Your task to perform on an android device: Find coffee shops on Maps Image 0: 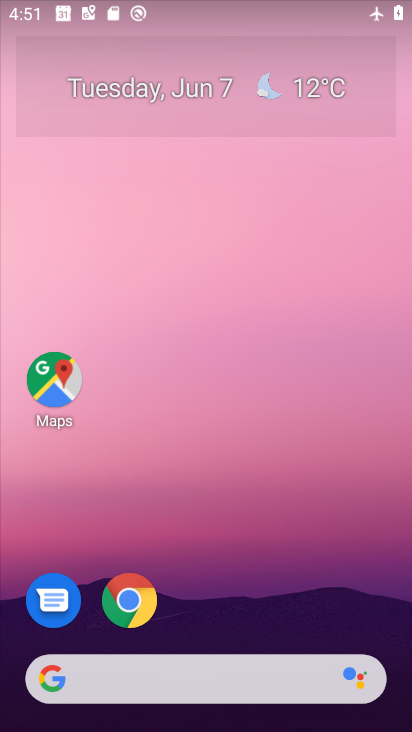
Step 0: drag from (294, 498) to (314, 24)
Your task to perform on an android device: Find coffee shops on Maps Image 1: 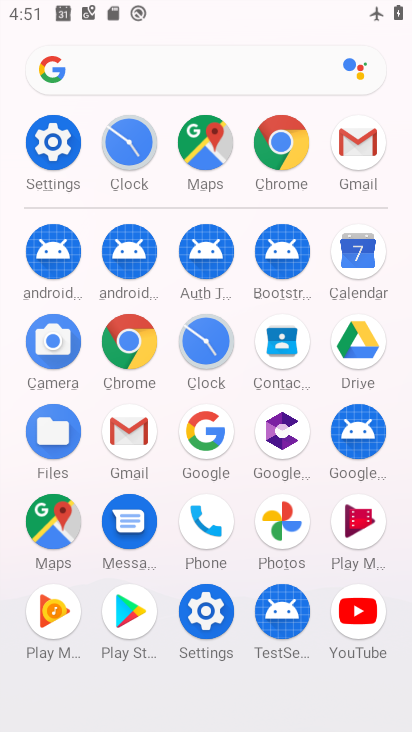
Step 1: click (216, 137)
Your task to perform on an android device: Find coffee shops on Maps Image 2: 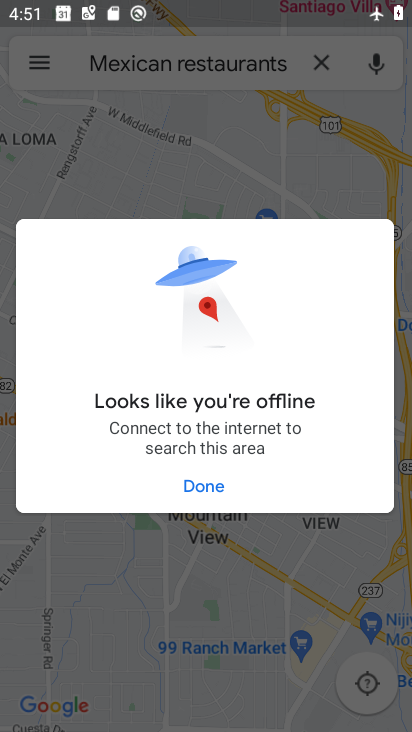
Step 2: click (202, 486)
Your task to perform on an android device: Find coffee shops on Maps Image 3: 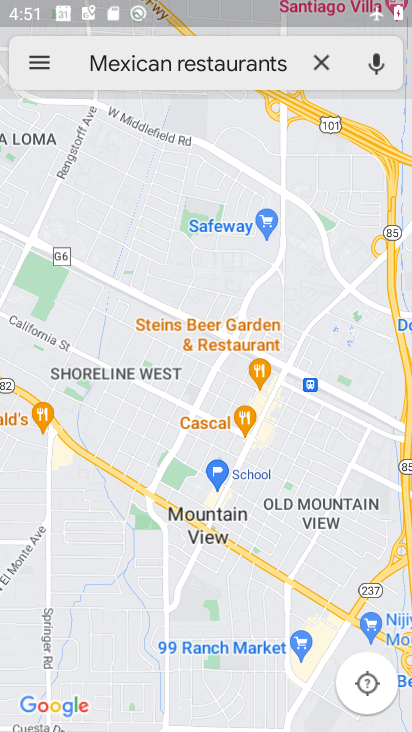
Step 3: click (249, 58)
Your task to perform on an android device: Find coffee shops on Maps Image 4: 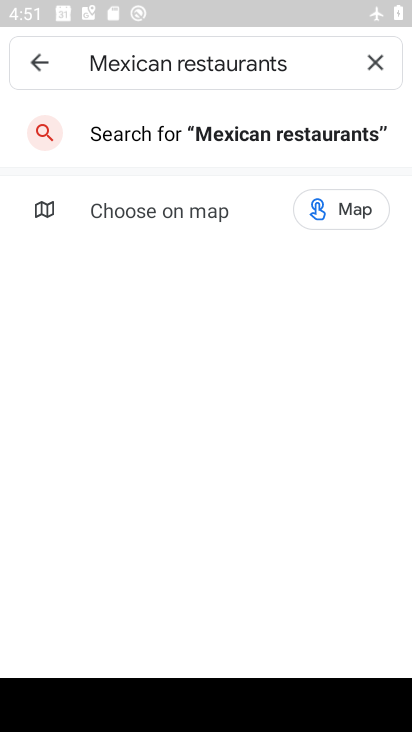
Step 4: click (371, 61)
Your task to perform on an android device: Find coffee shops on Maps Image 5: 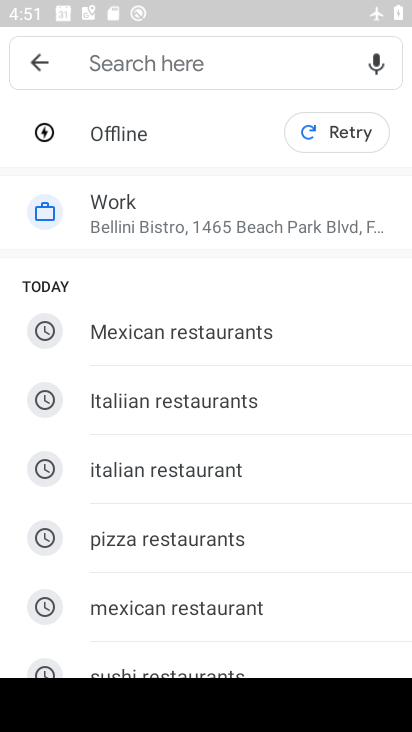
Step 5: type "coffee shops"
Your task to perform on an android device: Find coffee shops on Maps Image 6: 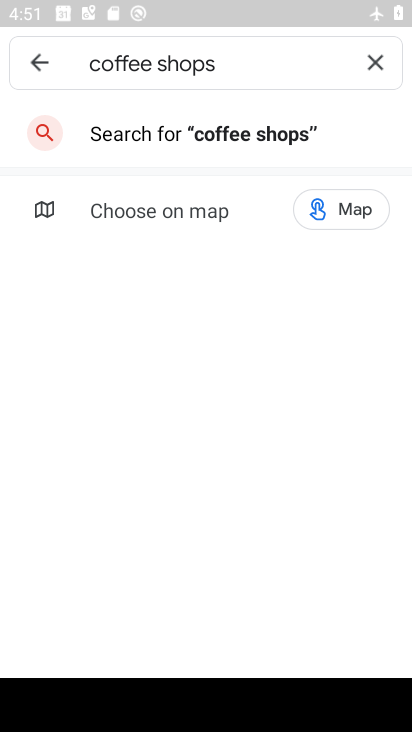
Step 6: press enter
Your task to perform on an android device: Find coffee shops on Maps Image 7: 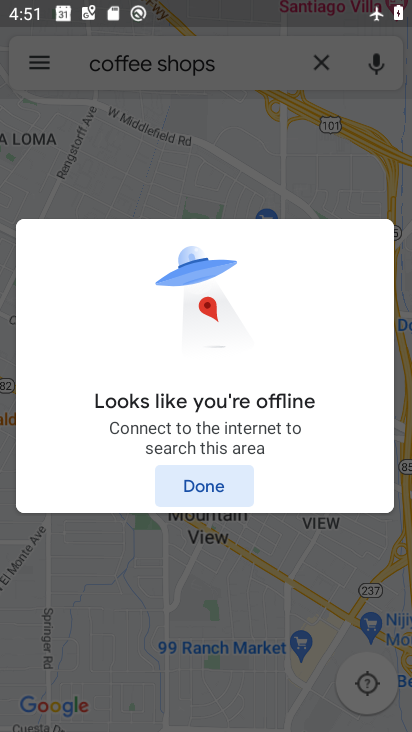
Step 7: task complete